Your task to perform on an android device: check data usage Image 0: 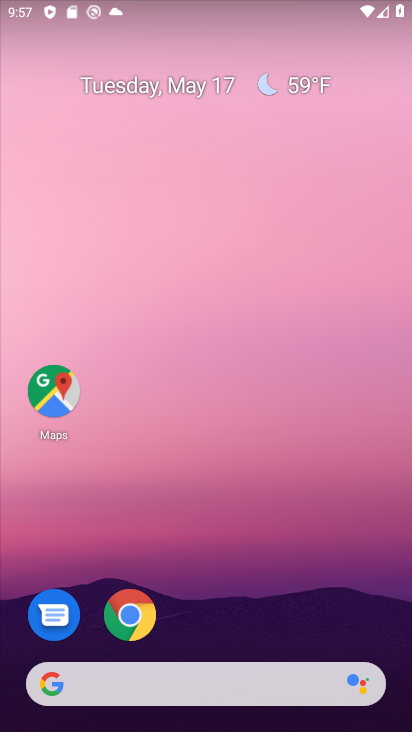
Step 0: drag from (166, 687) to (288, 136)
Your task to perform on an android device: check data usage Image 1: 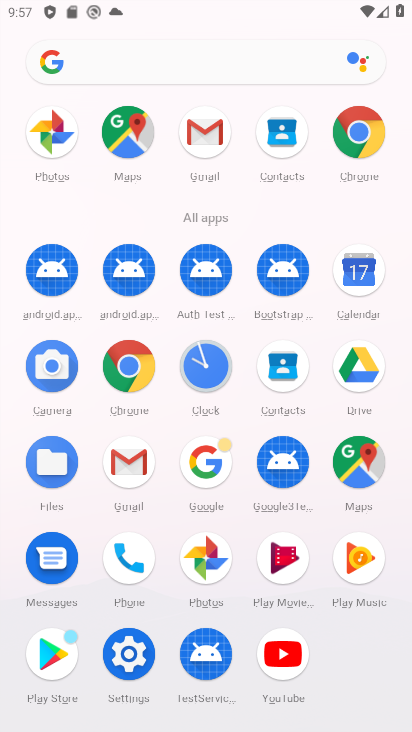
Step 1: click (132, 644)
Your task to perform on an android device: check data usage Image 2: 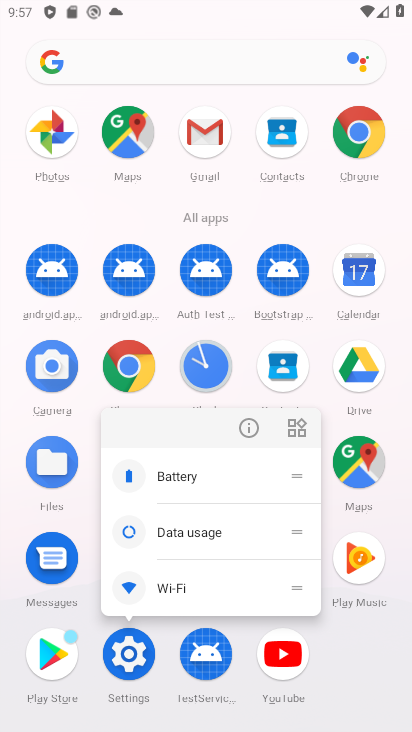
Step 2: click (129, 654)
Your task to perform on an android device: check data usage Image 3: 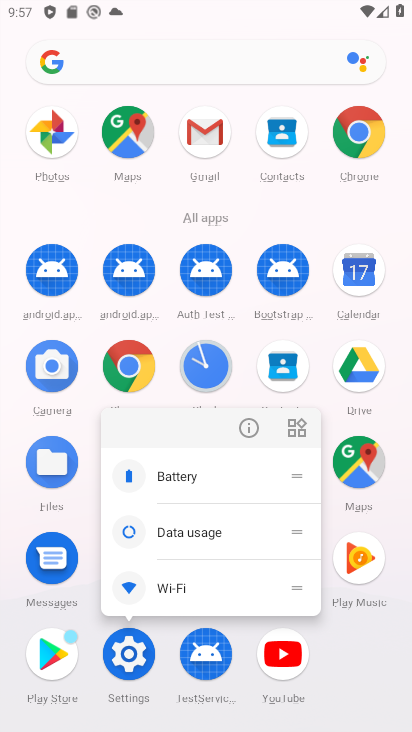
Step 3: click (132, 668)
Your task to perform on an android device: check data usage Image 4: 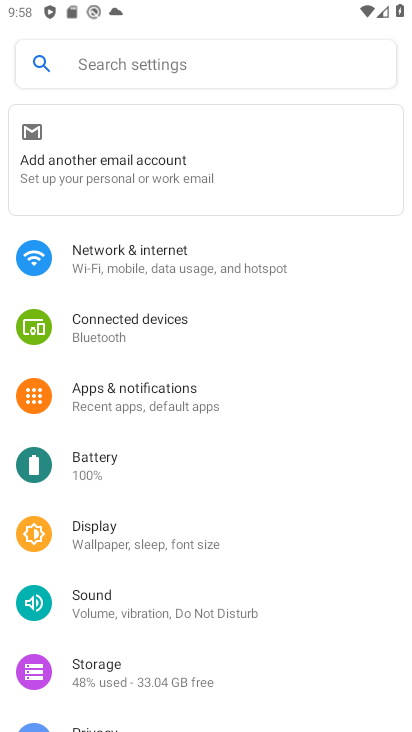
Step 4: click (140, 259)
Your task to perform on an android device: check data usage Image 5: 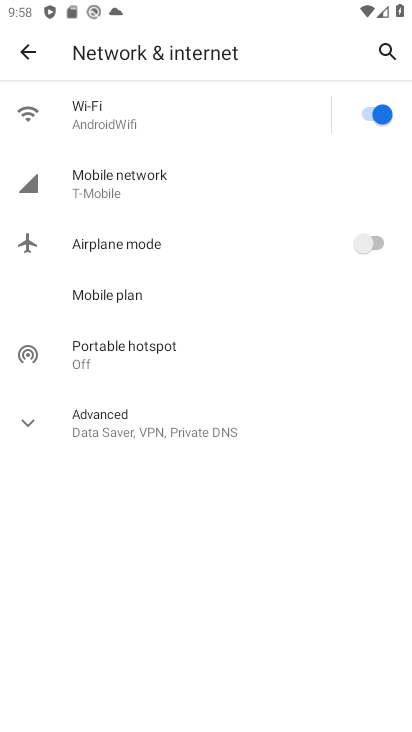
Step 5: click (115, 108)
Your task to perform on an android device: check data usage Image 6: 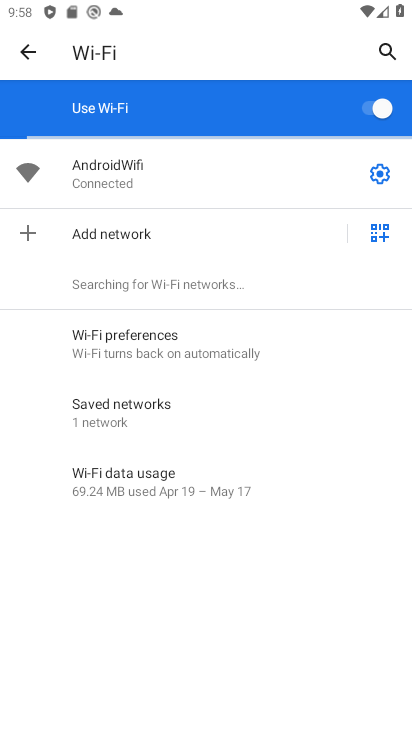
Step 6: drag from (187, 558) to (271, 258)
Your task to perform on an android device: check data usage Image 7: 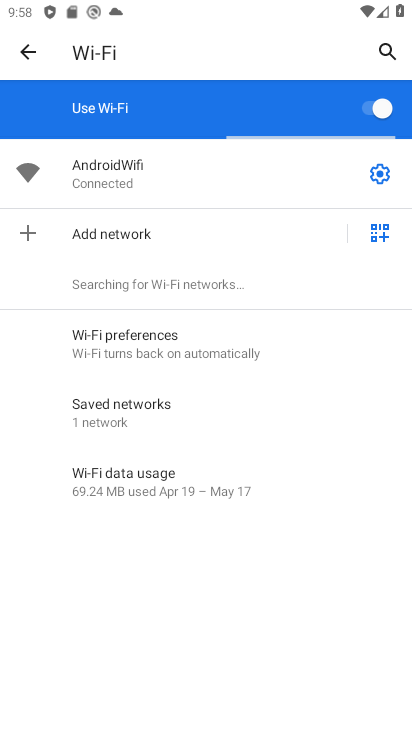
Step 7: click (114, 466)
Your task to perform on an android device: check data usage Image 8: 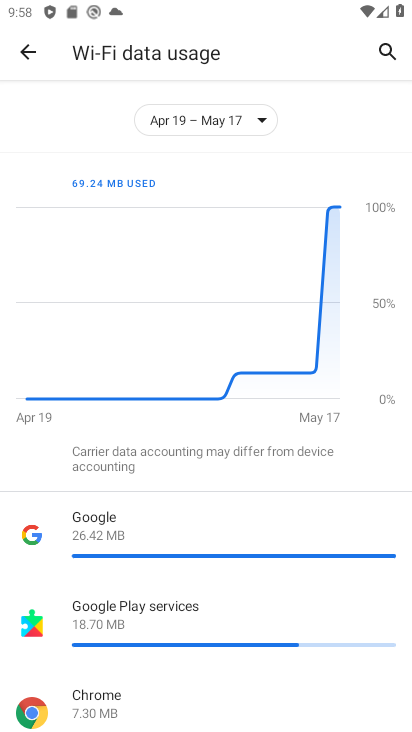
Step 8: task complete